Your task to perform on an android device: Go to sound settings Image 0: 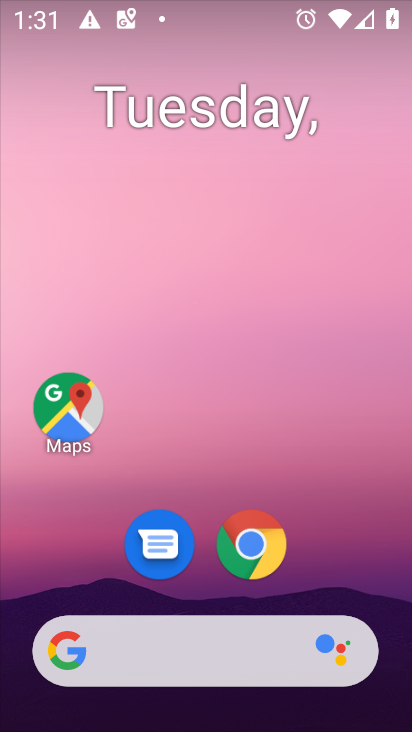
Step 0: drag from (303, 475) to (318, 3)
Your task to perform on an android device: Go to sound settings Image 1: 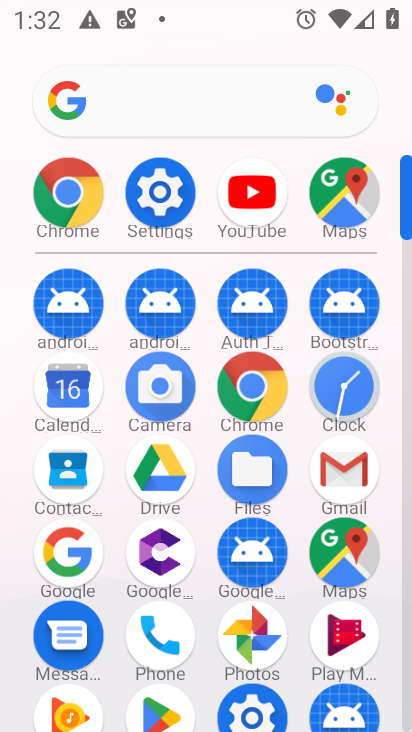
Step 1: click (153, 203)
Your task to perform on an android device: Go to sound settings Image 2: 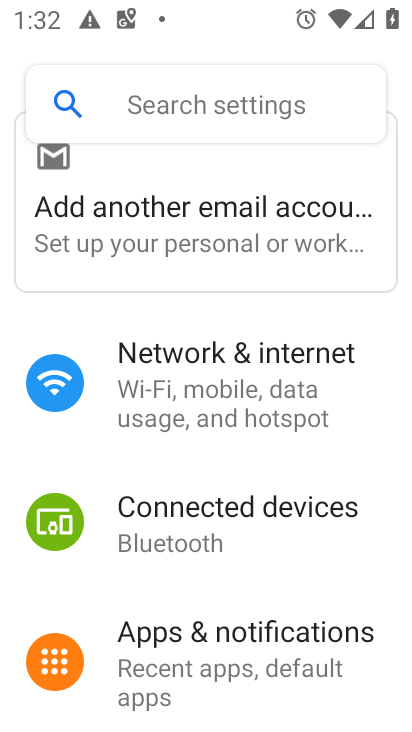
Step 2: drag from (232, 611) to (218, 227)
Your task to perform on an android device: Go to sound settings Image 3: 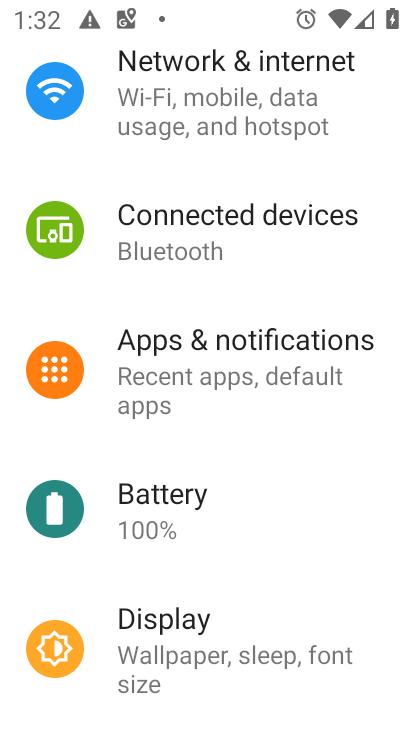
Step 3: drag from (266, 147) to (276, 70)
Your task to perform on an android device: Go to sound settings Image 4: 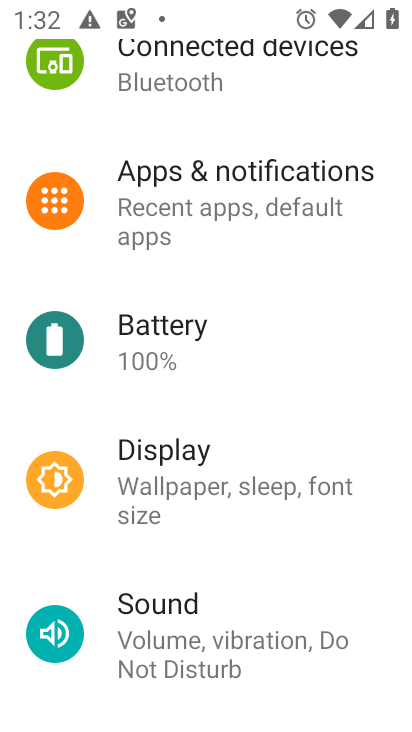
Step 4: click (176, 629)
Your task to perform on an android device: Go to sound settings Image 5: 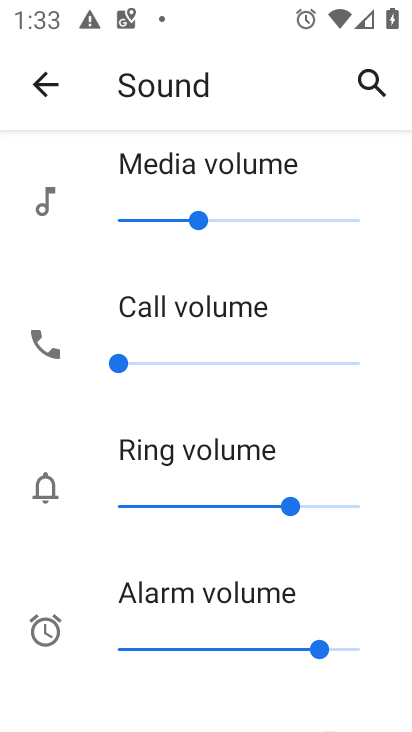
Step 5: task complete